Your task to perform on an android device: Go to Yahoo.com Image 0: 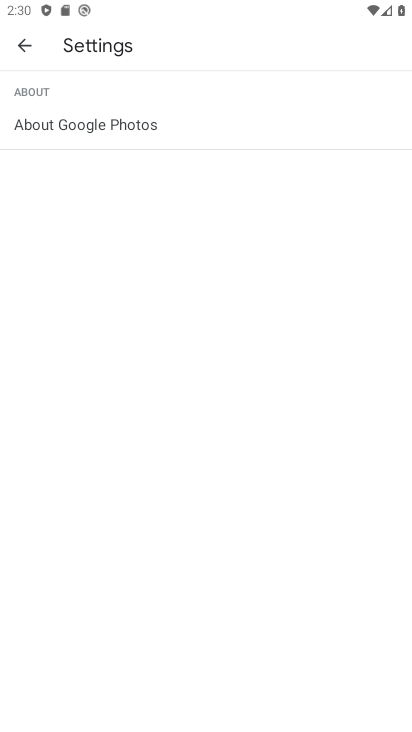
Step 0: press home button
Your task to perform on an android device: Go to Yahoo.com Image 1: 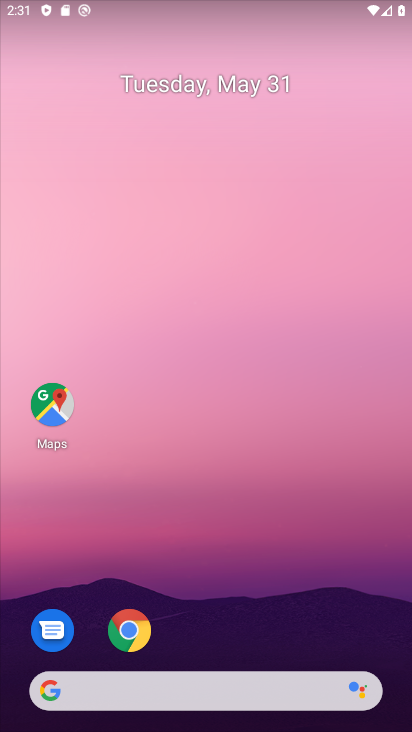
Step 1: drag from (269, 605) to (331, 40)
Your task to perform on an android device: Go to Yahoo.com Image 2: 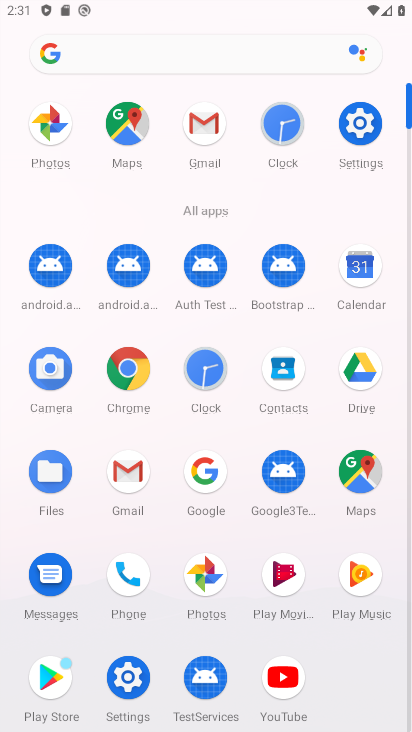
Step 2: click (127, 368)
Your task to perform on an android device: Go to Yahoo.com Image 3: 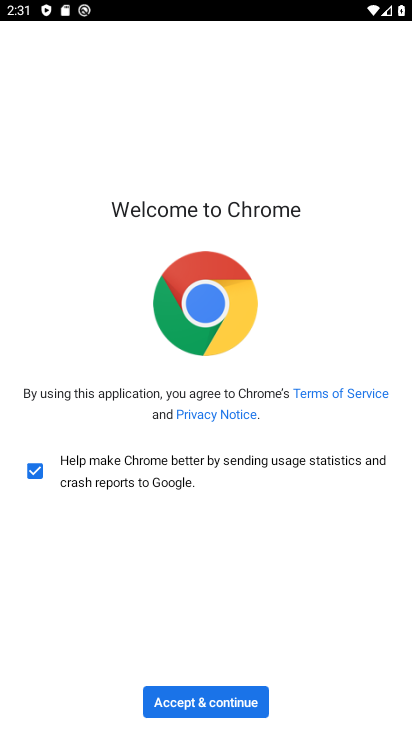
Step 3: click (218, 697)
Your task to perform on an android device: Go to Yahoo.com Image 4: 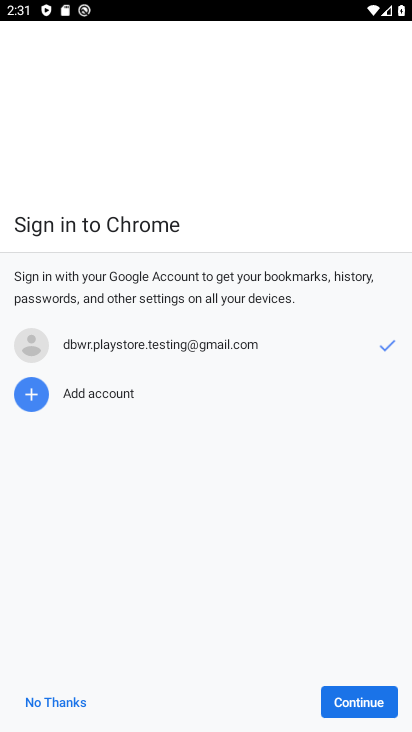
Step 4: click (362, 702)
Your task to perform on an android device: Go to Yahoo.com Image 5: 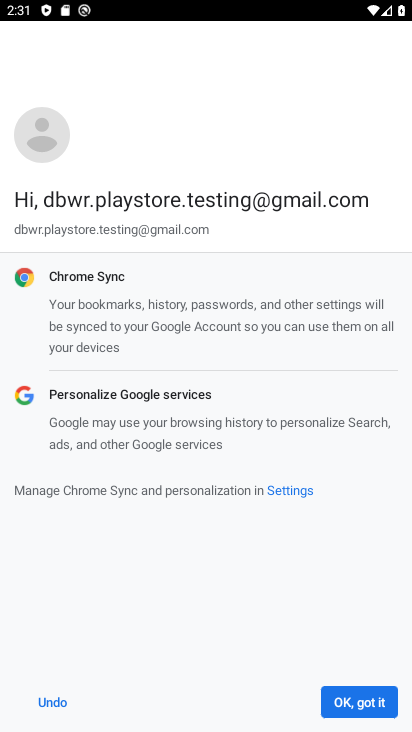
Step 5: click (362, 702)
Your task to perform on an android device: Go to Yahoo.com Image 6: 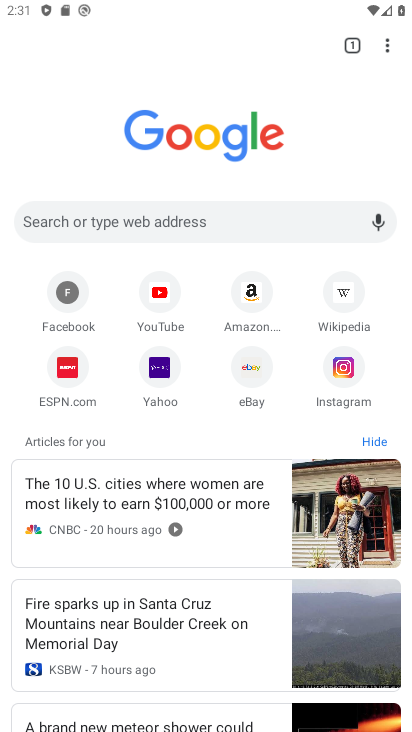
Step 6: click (195, 217)
Your task to perform on an android device: Go to Yahoo.com Image 7: 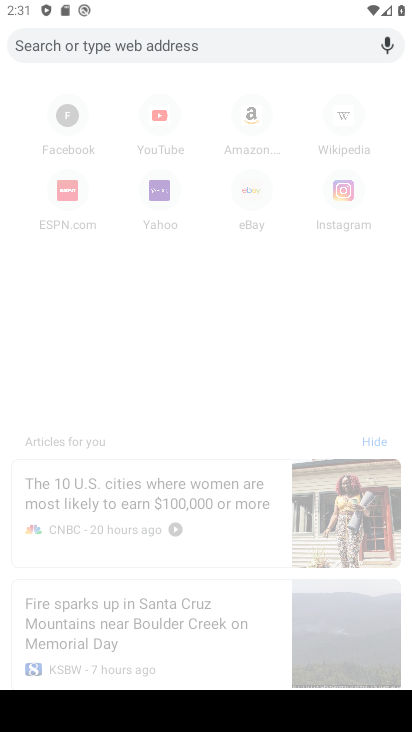
Step 7: type " Yahoo.com"
Your task to perform on an android device: Go to Yahoo.com Image 8: 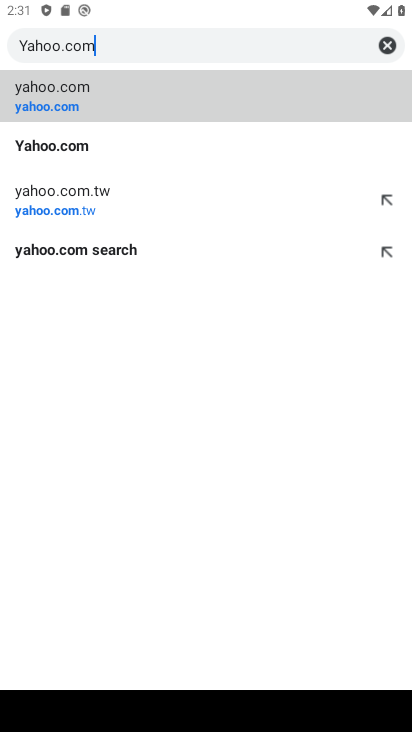
Step 8: click (35, 102)
Your task to perform on an android device: Go to Yahoo.com Image 9: 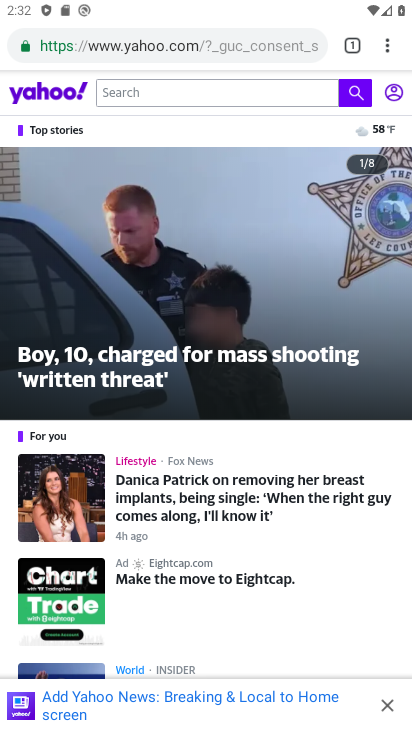
Step 9: task complete